Your task to perform on an android device: Open wifi settings Image 0: 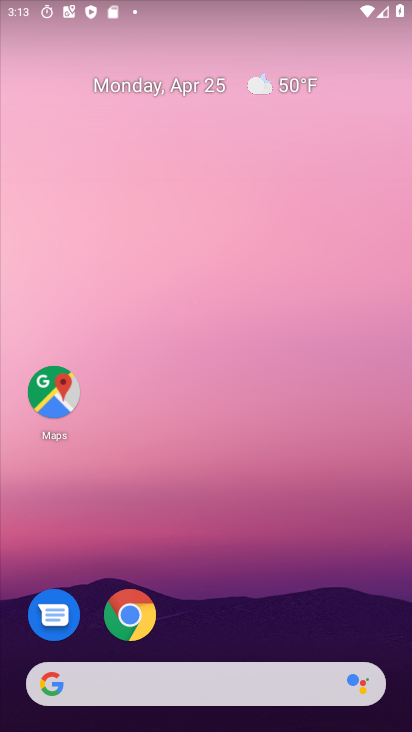
Step 0: drag from (188, 720) to (167, 82)
Your task to perform on an android device: Open wifi settings Image 1: 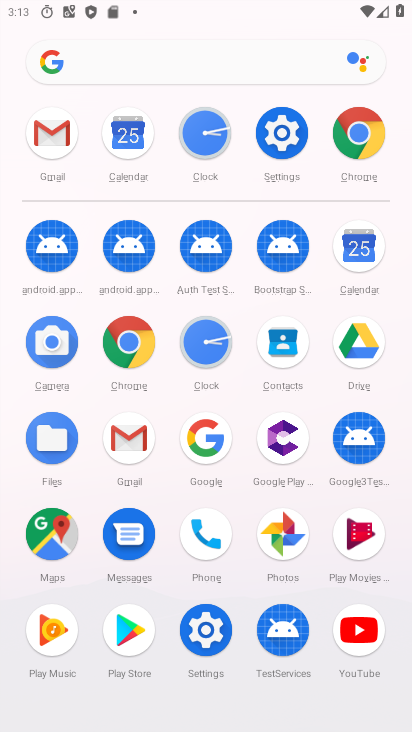
Step 1: click (276, 134)
Your task to perform on an android device: Open wifi settings Image 2: 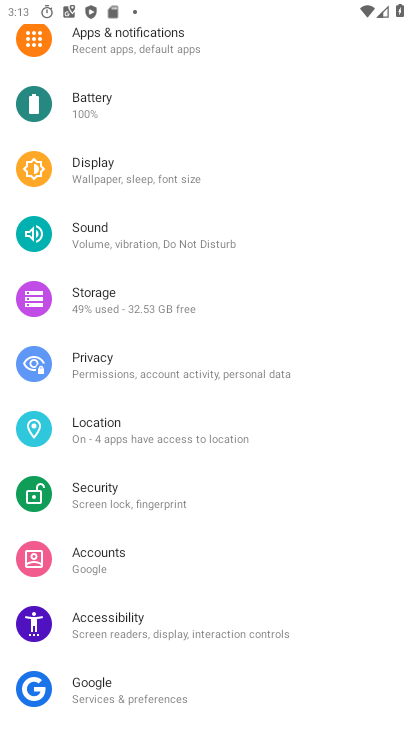
Step 2: drag from (181, 117) to (188, 521)
Your task to perform on an android device: Open wifi settings Image 3: 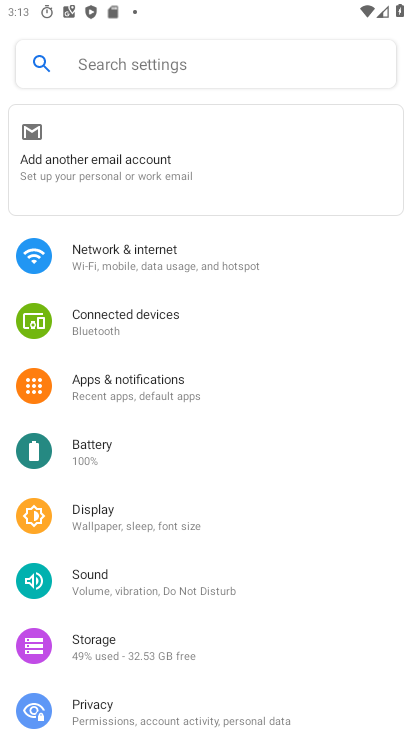
Step 3: click (128, 257)
Your task to perform on an android device: Open wifi settings Image 4: 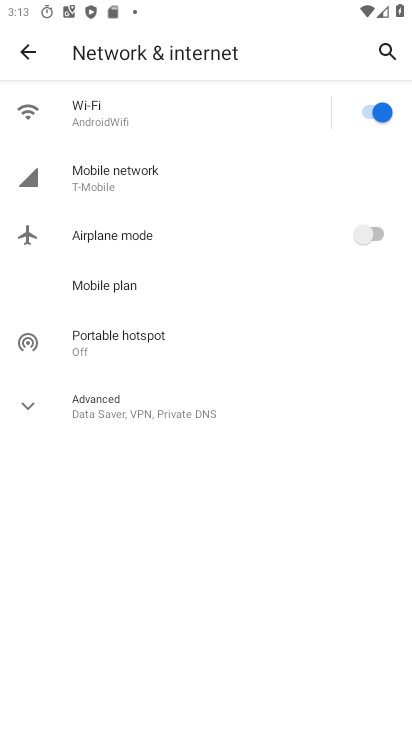
Step 4: click (111, 110)
Your task to perform on an android device: Open wifi settings Image 5: 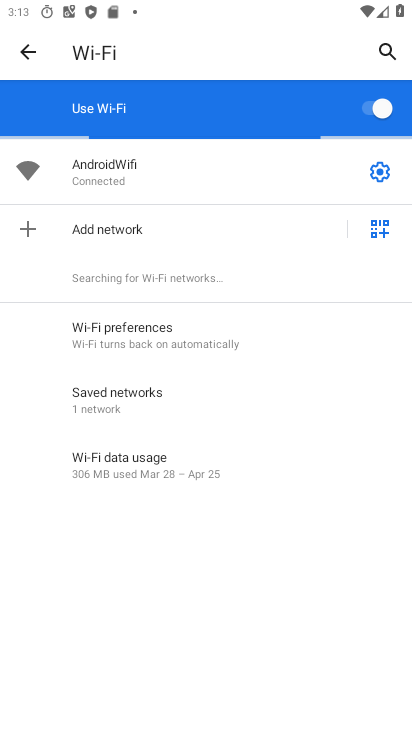
Step 5: task complete